Your task to perform on an android device: set the timer Image 0: 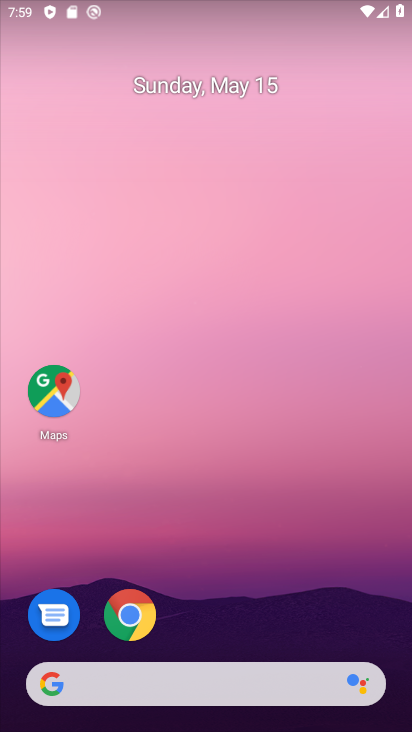
Step 0: drag from (230, 618) to (270, 107)
Your task to perform on an android device: set the timer Image 1: 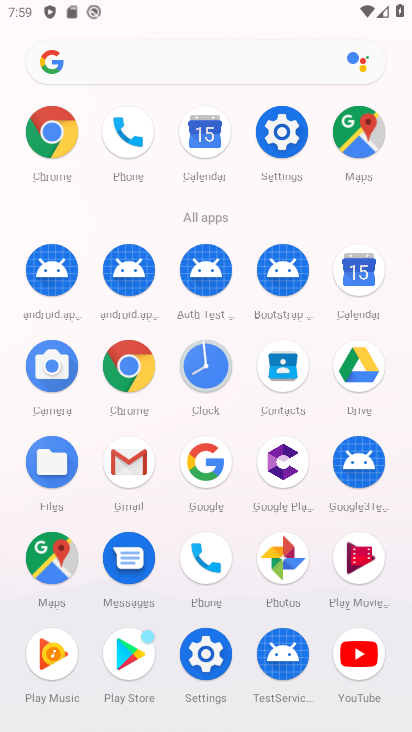
Step 1: click (209, 351)
Your task to perform on an android device: set the timer Image 2: 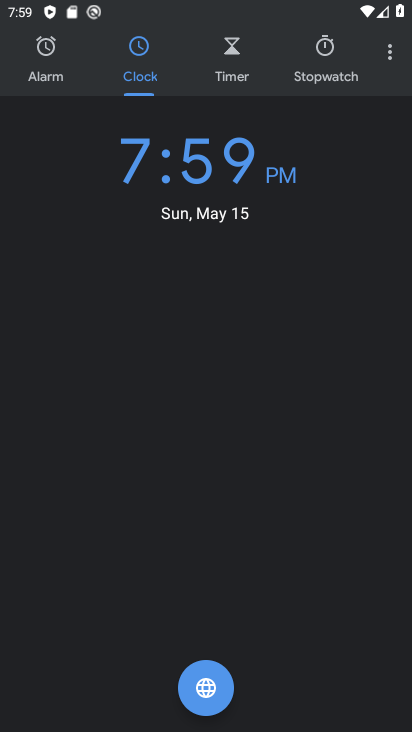
Step 2: click (242, 49)
Your task to perform on an android device: set the timer Image 3: 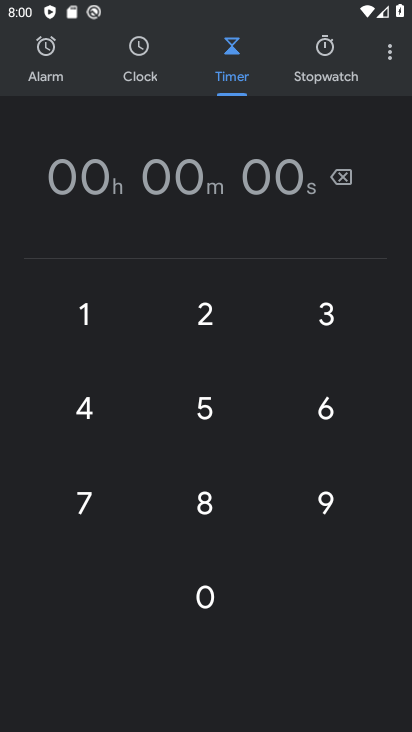
Step 3: task complete